Your task to perform on an android device: Clear the cart on bestbuy. Add razer blade to the cart on bestbuy Image 0: 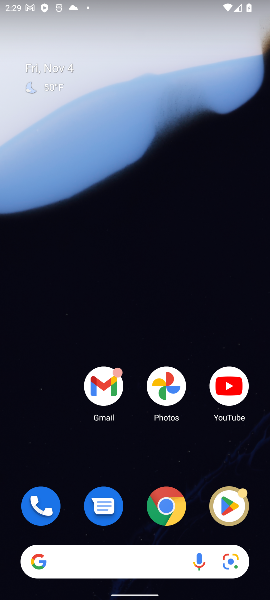
Step 0: drag from (135, 467) to (151, 1)
Your task to perform on an android device: Clear the cart on bestbuy. Add razer blade to the cart on bestbuy Image 1: 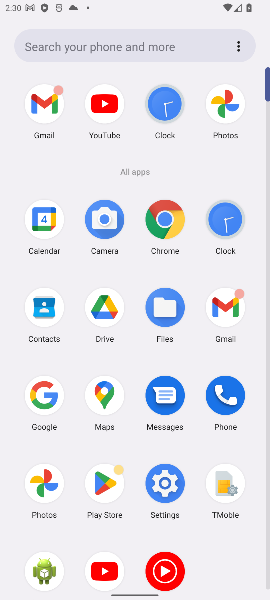
Step 1: click (165, 217)
Your task to perform on an android device: Clear the cart on bestbuy. Add razer blade to the cart on bestbuy Image 2: 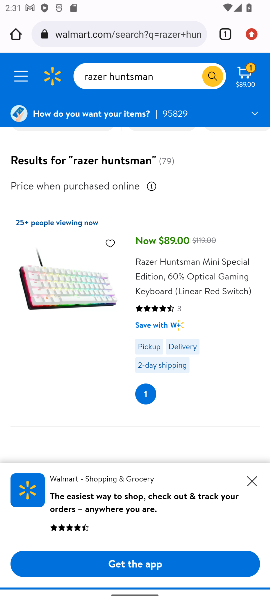
Step 2: click (160, 32)
Your task to perform on an android device: Clear the cart on bestbuy. Add razer blade to the cart on bestbuy Image 3: 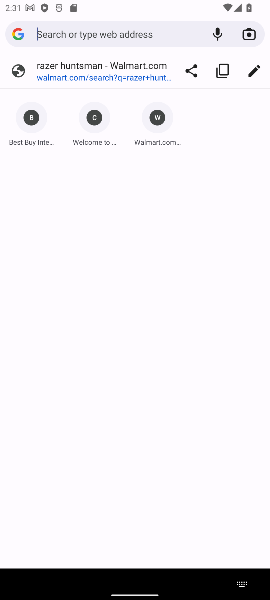
Step 3: type "bestbuy.com"
Your task to perform on an android device: Clear the cart on bestbuy. Add razer blade to the cart on bestbuy Image 4: 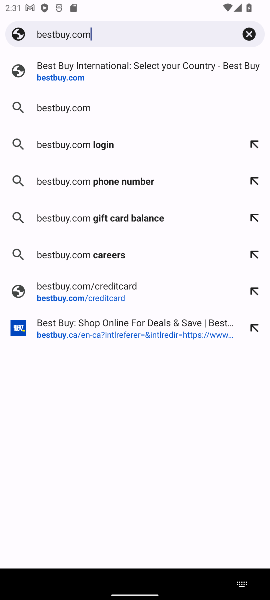
Step 4: press enter
Your task to perform on an android device: Clear the cart on bestbuy. Add razer blade to the cart on bestbuy Image 5: 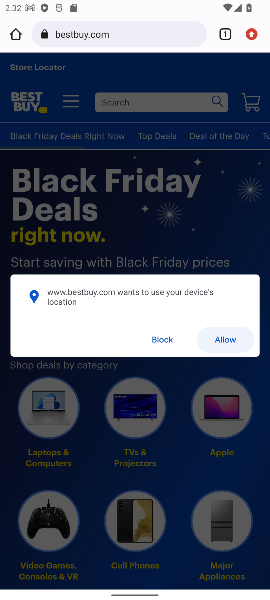
Step 5: click (163, 343)
Your task to perform on an android device: Clear the cart on bestbuy. Add razer blade to the cart on bestbuy Image 6: 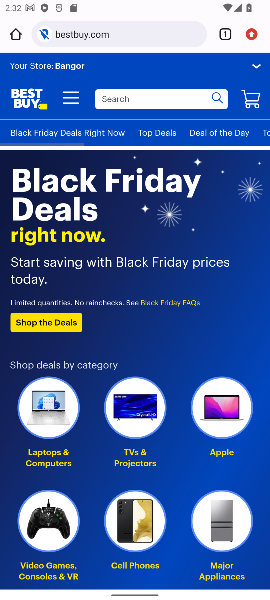
Step 6: click (168, 104)
Your task to perform on an android device: Clear the cart on bestbuy. Add razer blade to the cart on bestbuy Image 7: 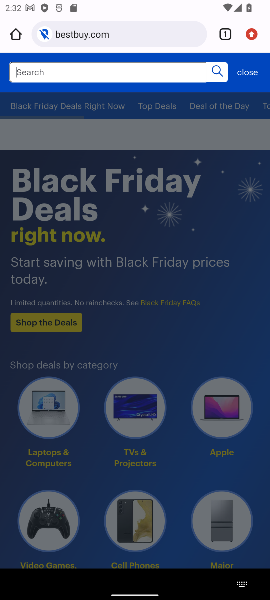
Step 7: type "razer blade"
Your task to perform on an android device: Clear the cart on bestbuy. Add razer blade to the cart on bestbuy Image 8: 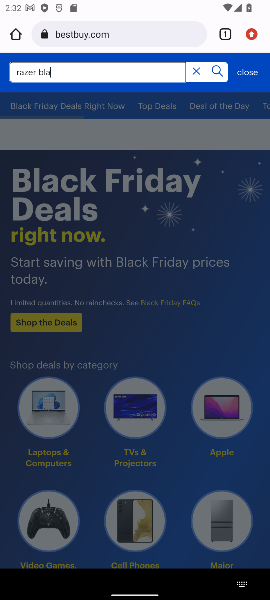
Step 8: press enter
Your task to perform on an android device: Clear the cart on bestbuy. Add razer blade to the cart on bestbuy Image 9: 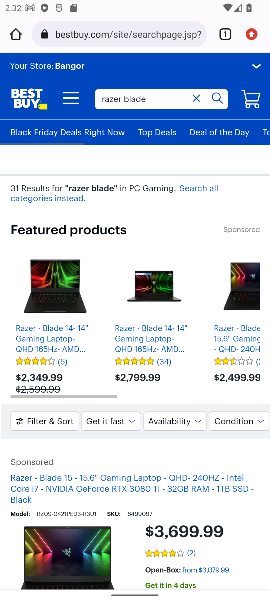
Step 9: drag from (151, 424) to (129, 157)
Your task to perform on an android device: Clear the cart on bestbuy. Add razer blade to the cart on bestbuy Image 10: 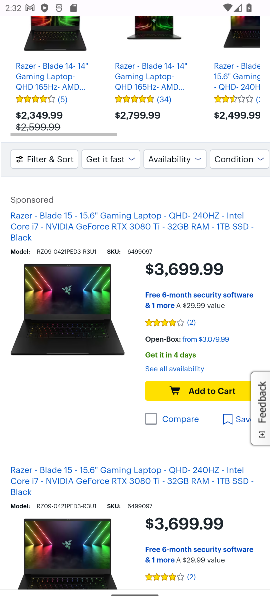
Step 10: drag from (144, 506) to (144, 318)
Your task to perform on an android device: Clear the cart on bestbuy. Add razer blade to the cart on bestbuy Image 11: 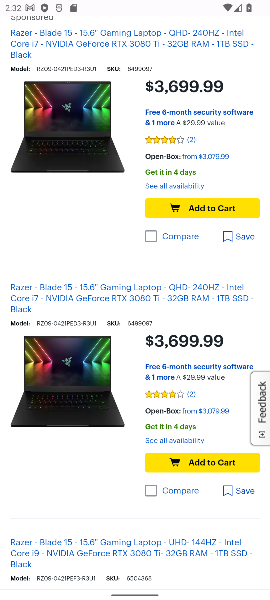
Step 11: drag from (73, 208) to (102, 319)
Your task to perform on an android device: Clear the cart on bestbuy. Add razer blade to the cart on bestbuy Image 12: 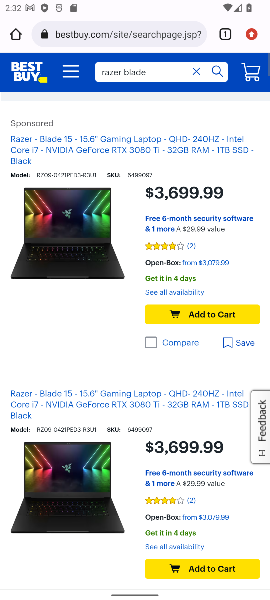
Step 12: click (142, 406)
Your task to perform on an android device: Clear the cart on bestbuy. Add razer blade to the cart on bestbuy Image 13: 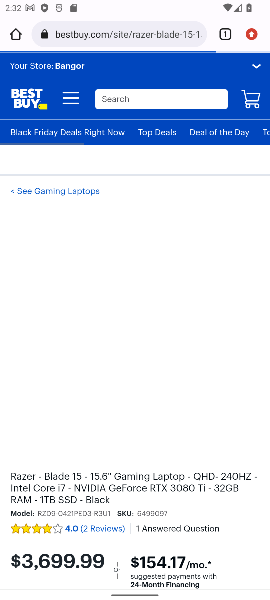
Step 13: drag from (205, 520) to (148, 188)
Your task to perform on an android device: Clear the cart on bestbuy. Add razer blade to the cart on bestbuy Image 14: 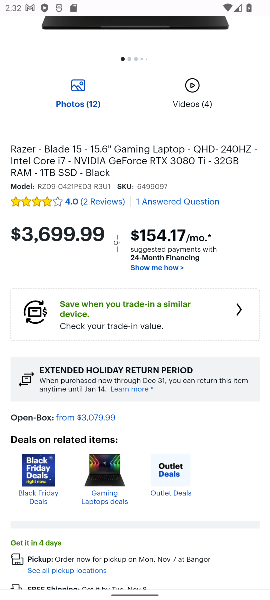
Step 14: drag from (166, 452) to (179, 199)
Your task to perform on an android device: Clear the cart on bestbuy. Add razer blade to the cart on bestbuy Image 15: 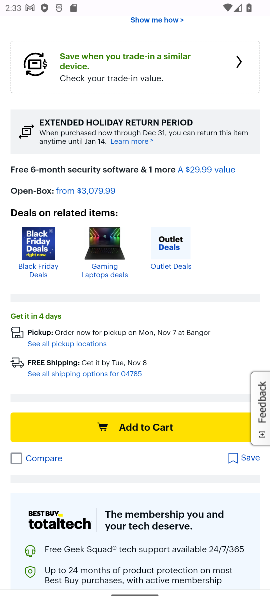
Step 15: drag from (157, 118) to (157, 67)
Your task to perform on an android device: Clear the cart on bestbuy. Add razer blade to the cart on bestbuy Image 16: 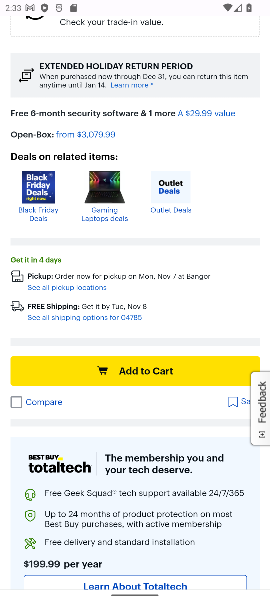
Step 16: click (156, 365)
Your task to perform on an android device: Clear the cart on bestbuy. Add razer blade to the cart on bestbuy Image 17: 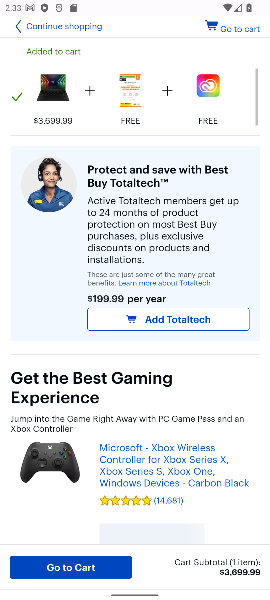
Step 17: task complete